Your task to perform on an android device: turn off translation in the chrome app Image 0: 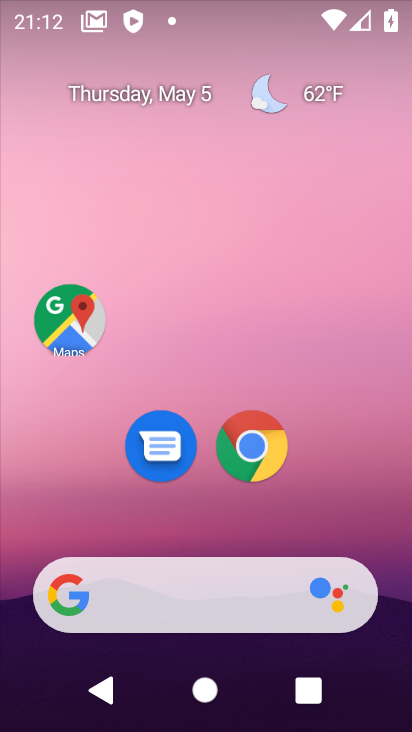
Step 0: drag from (286, 655) to (338, 177)
Your task to perform on an android device: turn off translation in the chrome app Image 1: 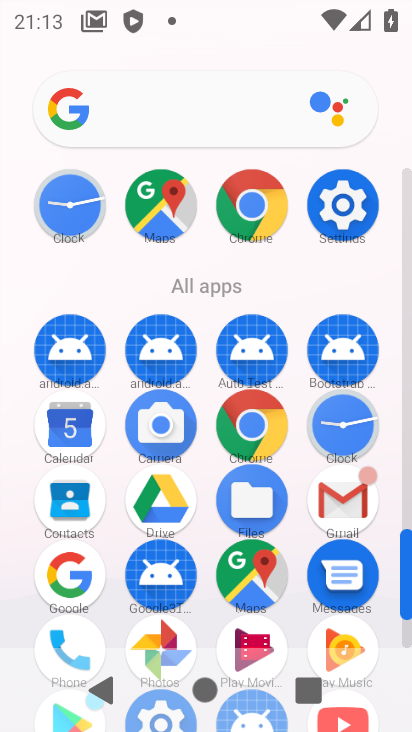
Step 1: click (268, 218)
Your task to perform on an android device: turn off translation in the chrome app Image 2: 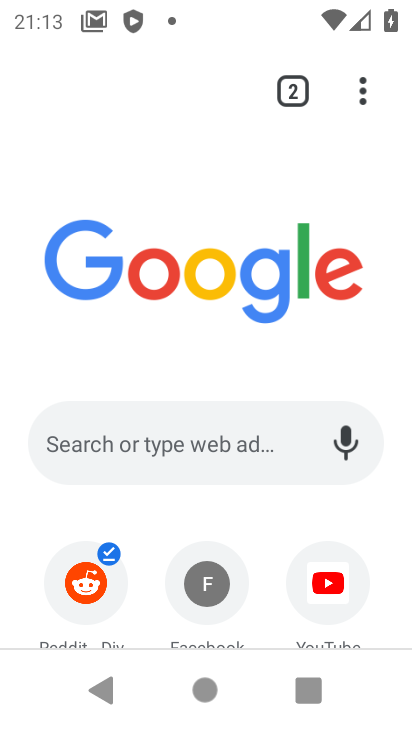
Step 2: click (364, 110)
Your task to perform on an android device: turn off translation in the chrome app Image 3: 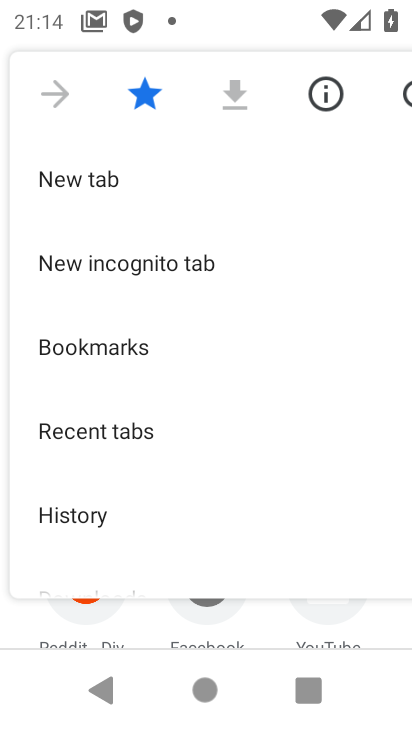
Step 3: drag from (116, 515) to (184, 299)
Your task to perform on an android device: turn off translation in the chrome app Image 4: 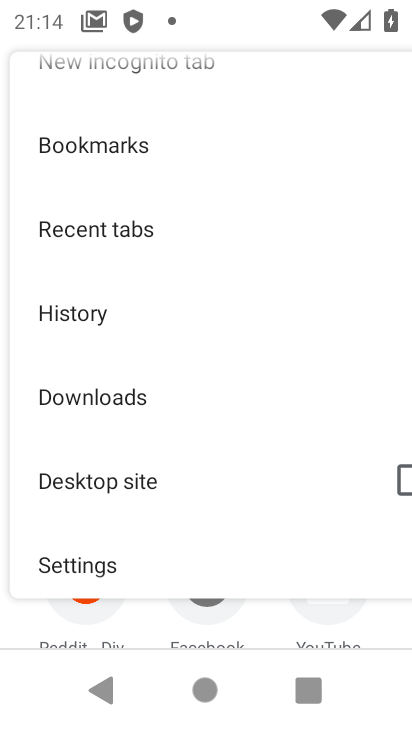
Step 4: click (95, 563)
Your task to perform on an android device: turn off translation in the chrome app Image 5: 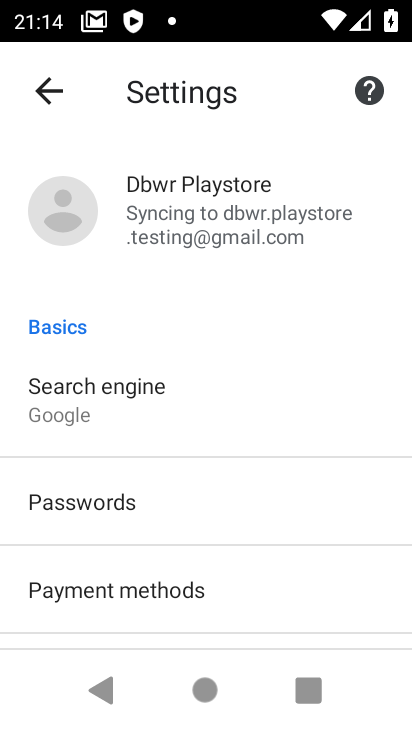
Step 5: drag from (170, 612) to (236, 407)
Your task to perform on an android device: turn off translation in the chrome app Image 6: 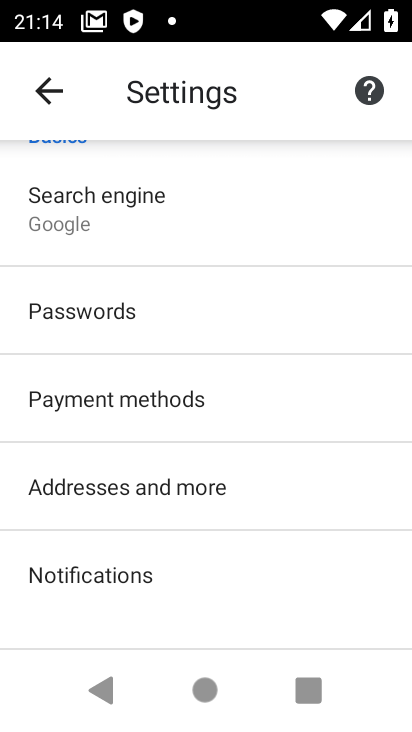
Step 6: drag from (156, 600) to (212, 416)
Your task to perform on an android device: turn off translation in the chrome app Image 7: 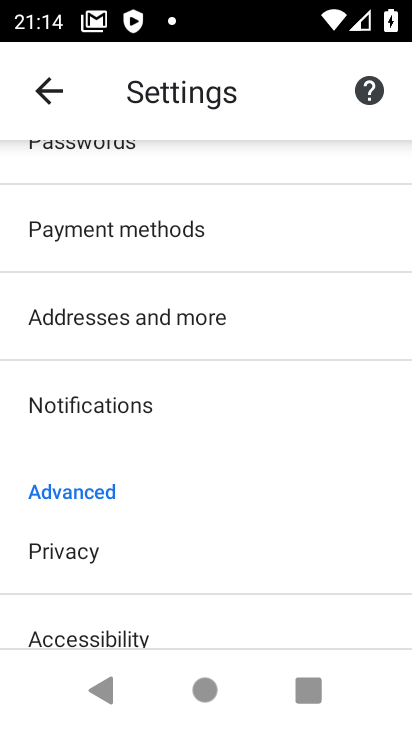
Step 7: drag from (131, 575) to (181, 397)
Your task to perform on an android device: turn off translation in the chrome app Image 8: 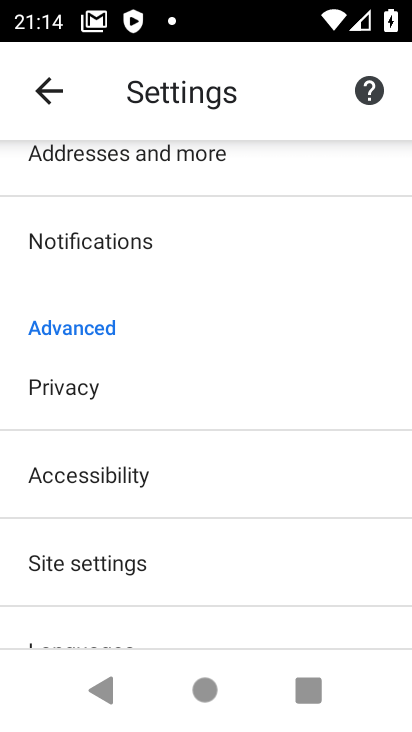
Step 8: drag from (92, 588) to (158, 453)
Your task to perform on an android device: turn off translation in the chrome app Image 9: 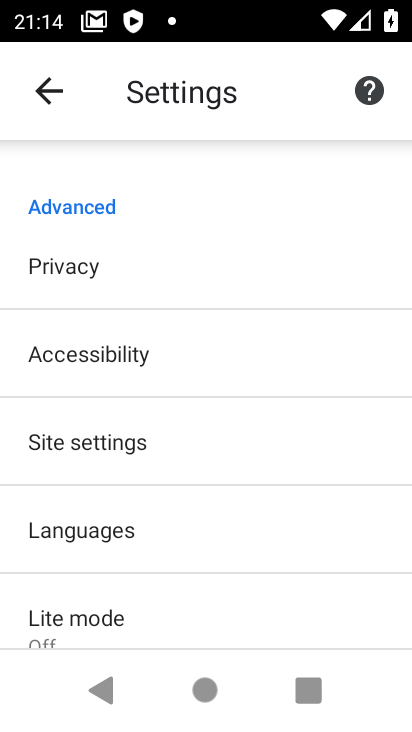
Step 9: click (96, 532)
Your task to perform on an android device: turn off translation in the chrome app Image 10: 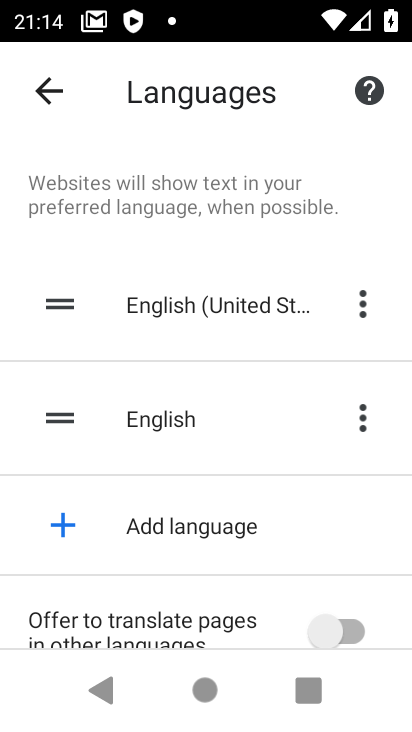
Step 10: click (187, 624)
Your task to perform on an android device: turn off translation in the chrome app Image 11: 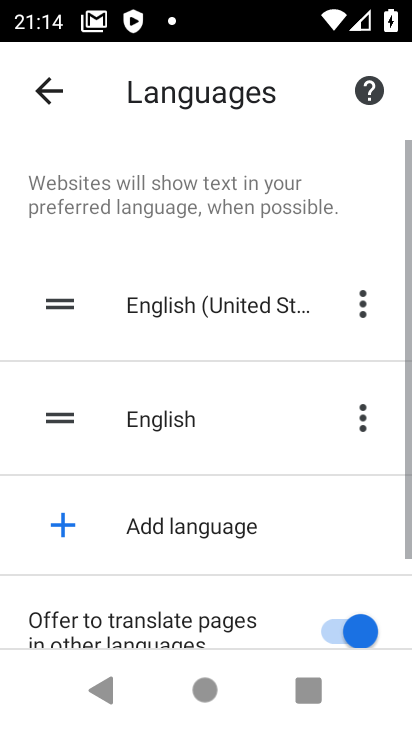
Step 11: click (187, 619)
Your task to perform on an android device: turn off translation in the chrome app Image 12: 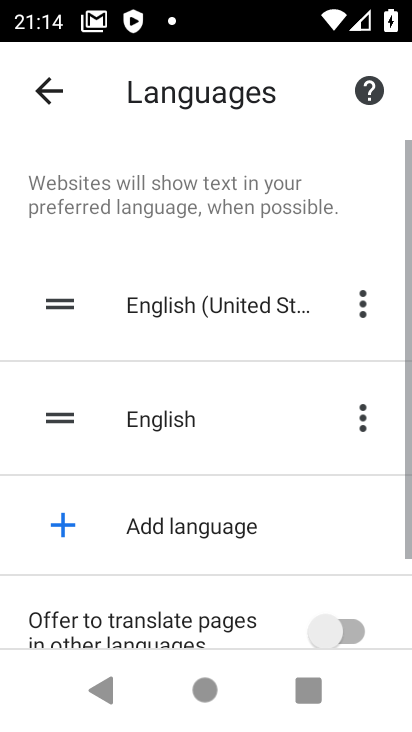
Step 12: task complete